Your task to perform on an android device: turn on priority inbox in the gmail app Image 0: 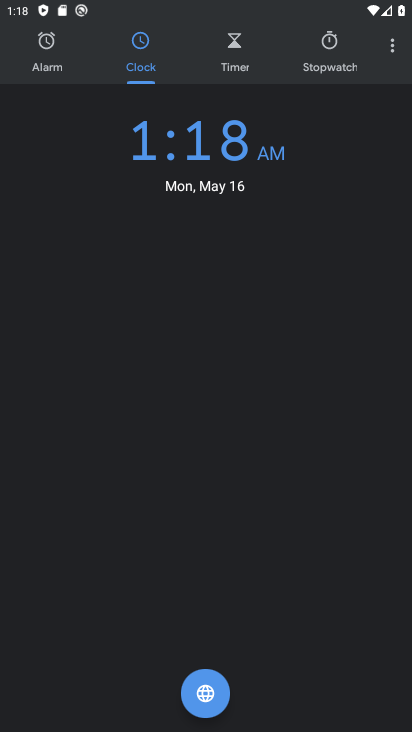
Step 0: press home button
Your task to perform on an android device: turn on priority inbox in the gmail app Image 1: 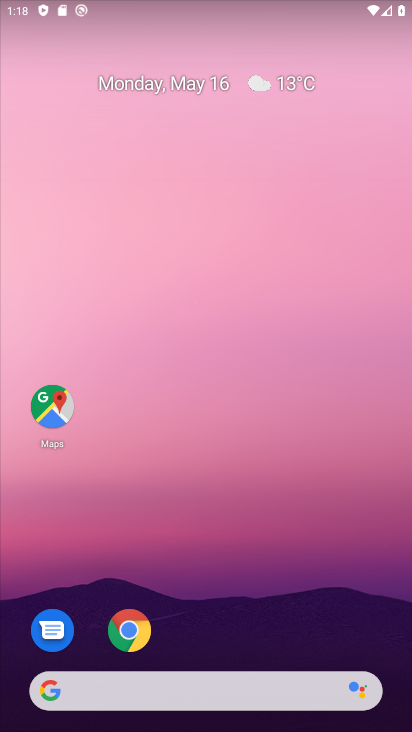
Step 1: drag from (272, 585) to (154, 108)
Your task to perform on an android device: turn on priority inbox in the gmail app Image 2: 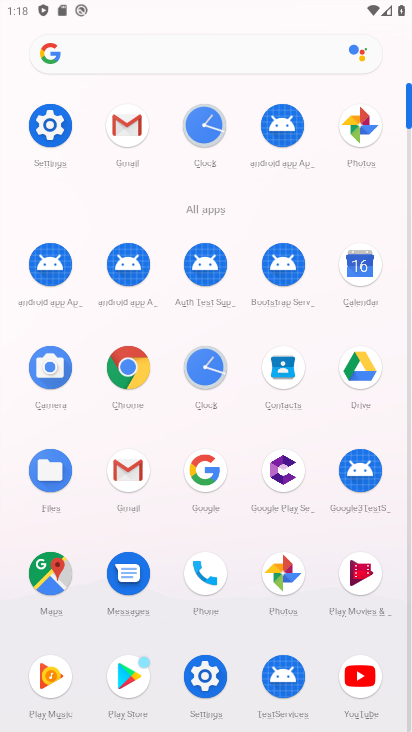
Step 2: click (126, 116)
Your task to perform on an android device: turn on priority inbox in the gmail app Image 3: 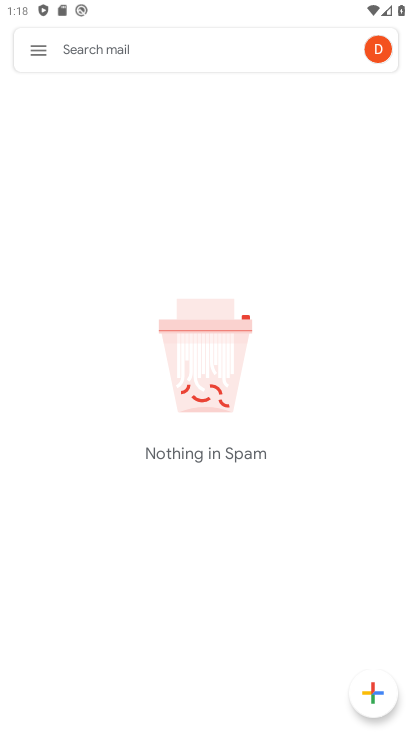
Step 3: click (33, 59)
Your task to perform on an android device: turn on priority inbox in the gmail app Image 4: 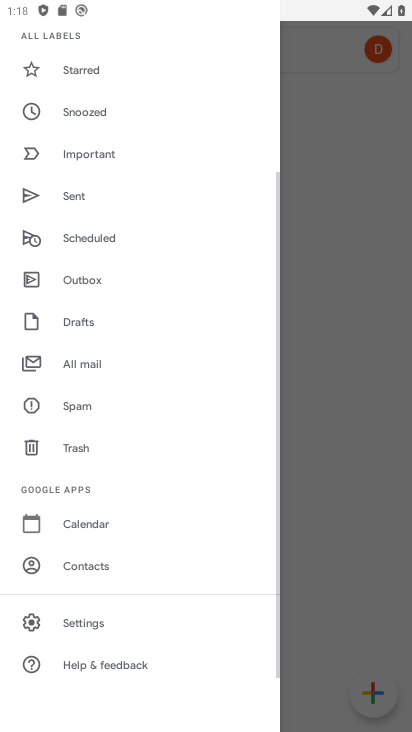
Step 4: drag from (105, 566) to (47, 92)
Your task to perform on an android device: turn on priority inbox in the gmail app Image 5: 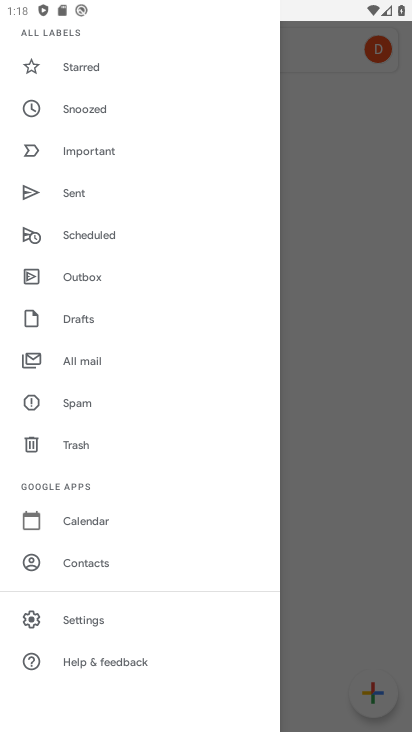
Step 5: drag from (161, 174) to (159, 557)
Your task to perform on an android device: turn on priority inbox in the gmail app Image 6: 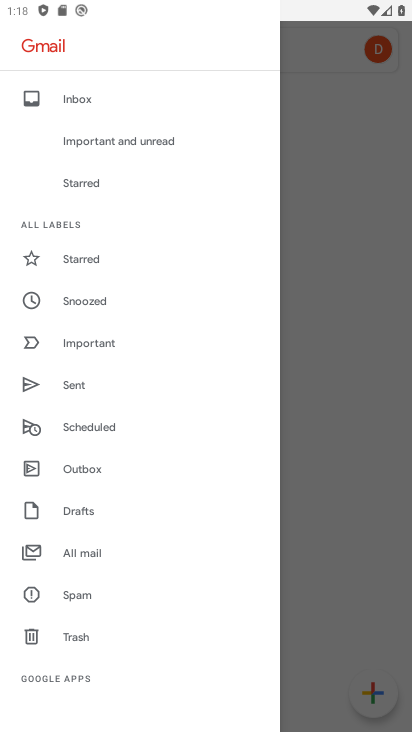
Step 6: click (69, 101)
Your task to perform on an android device: turn on priority inbox in the gmail app Image 7: 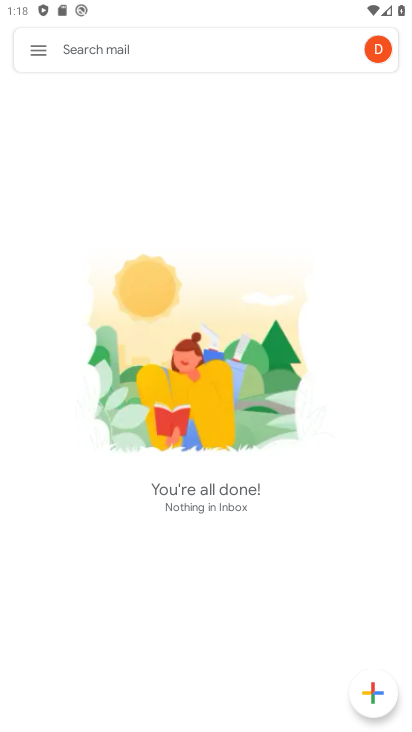
Step 7: click (33, 50)
Your task to perform on an android device: turn on priority inbox in the gmail app Image 8: 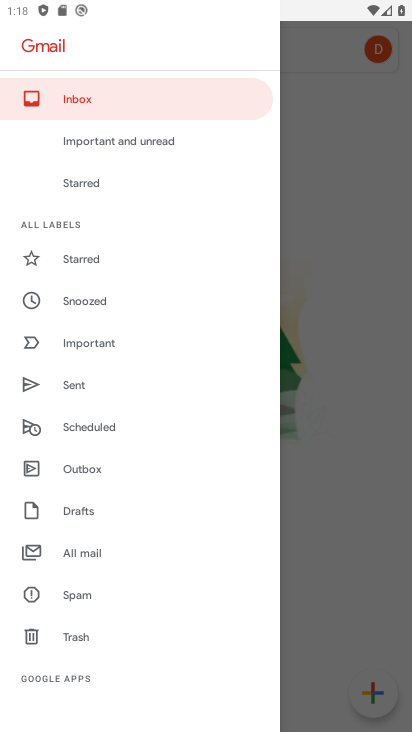
Step 8: click (167, 261)
Your task to perform on an android device: turn on priority inbox in the gmail app Image 9: 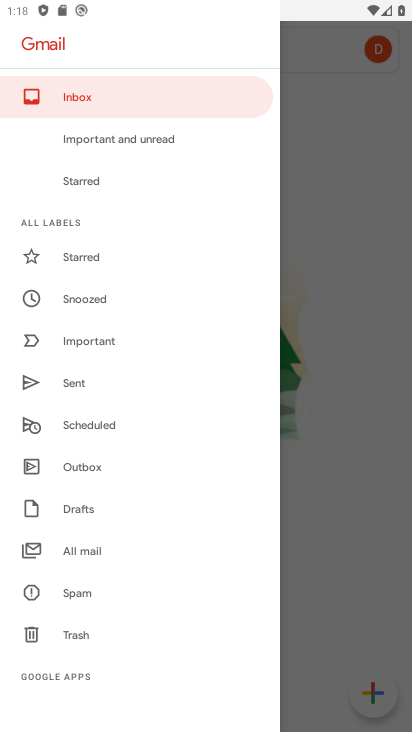
Step 9: drag from (153, 582) to (236, 223)
Your task to perform on an android device: turn on priority inbox in the gmail app Image 10: 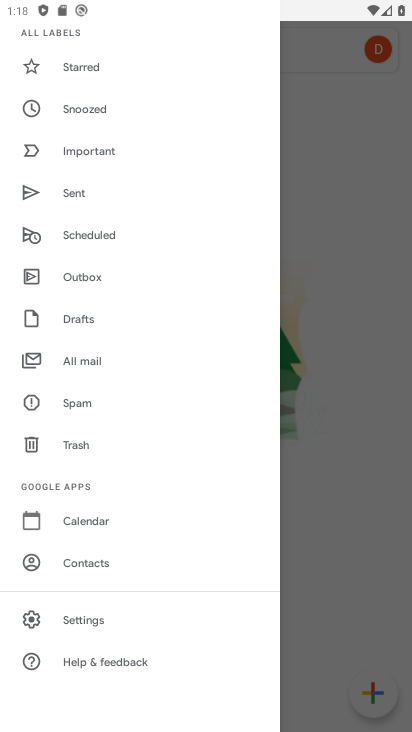
Step 10: click (112, 614)
Your task to perform on an android device: turn on priority inbox in the gmail app Image 11: 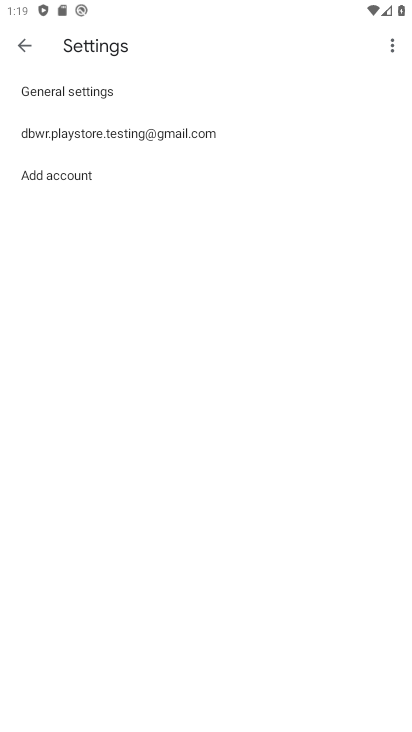
Step 11: click (387, 37)
Your task to perform on an android device: turn on priority inbox in the gmail app Image 12: 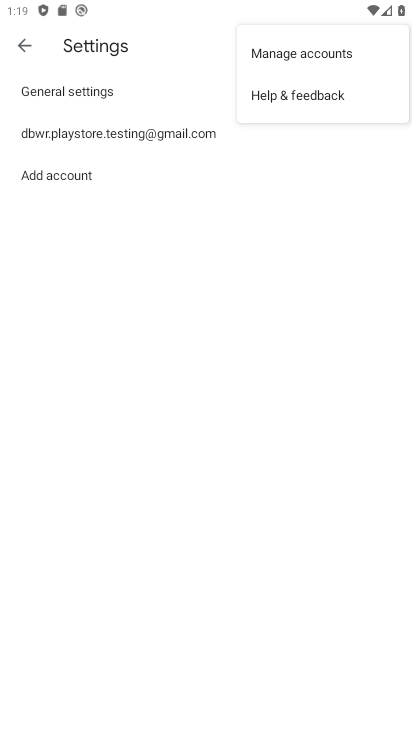
Step 12: task complete